Your task to perform on an android device: see tabs open on other devices in the chrome app Image 0: 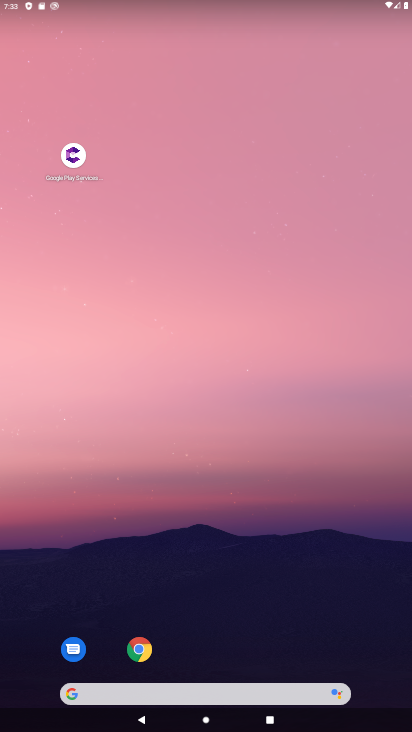
Step 0: drag from (205, 633) to (274, 176)
Your task to perform on an android device: see tabs open on other devices in the chrome app Image 1: 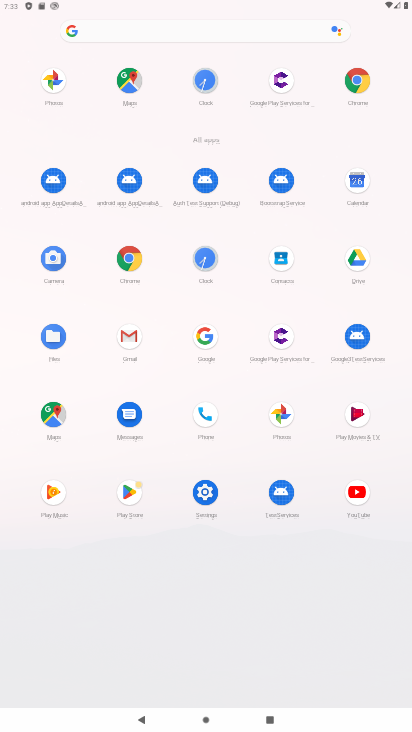
Step 1: click (132, 254)
Your task to perform on an android device: see tabs open on other devices in the chrome app Image 2: 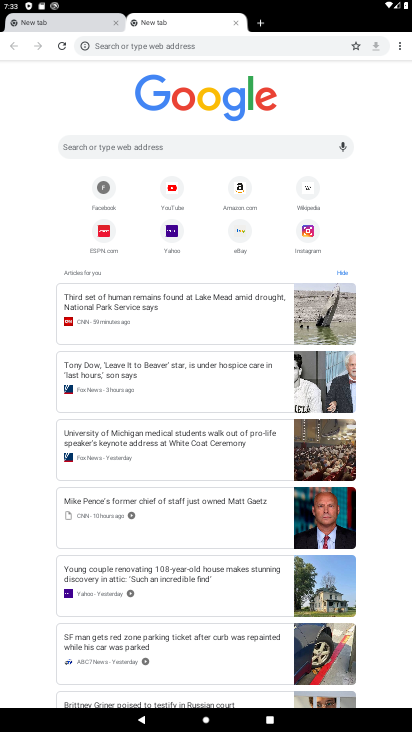
Step 2: click (401, 48)
Your task to perform on an android device: see tabs open on other devices in the chrome app Image 3: 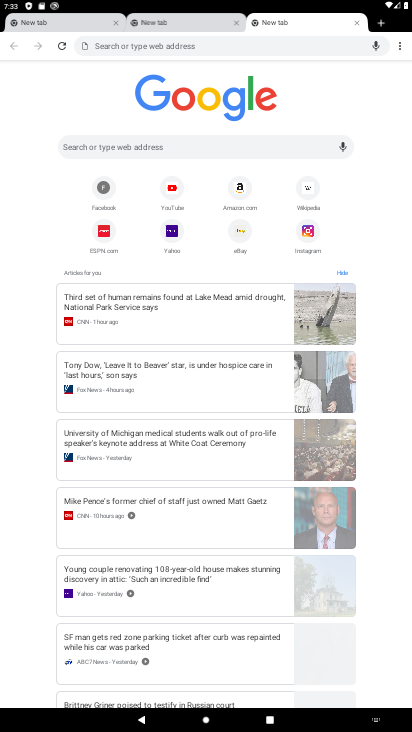
Step 3: click (401, 48)
Your task to perform on an android device: see tabs open on other devices in the chrome app Image 4: 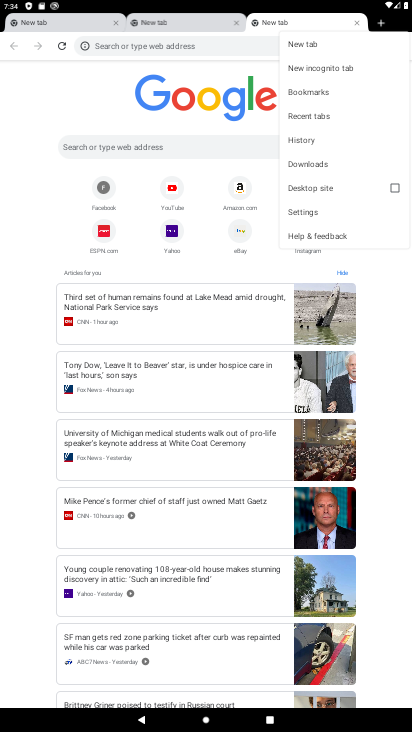
Step 4: click (313, 141)
Your task to perform on an android device: see tabs open on other devices in the chrome app Image 5: 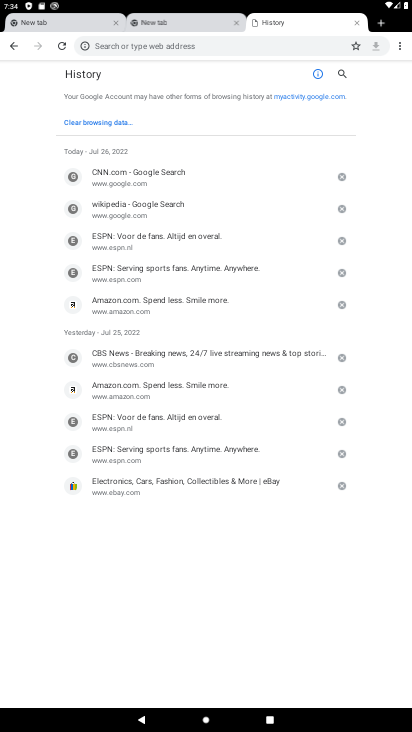
Step 5: task complete